Your task to perform on an android device: Open Youtube and go to "Your channel" Image 0: 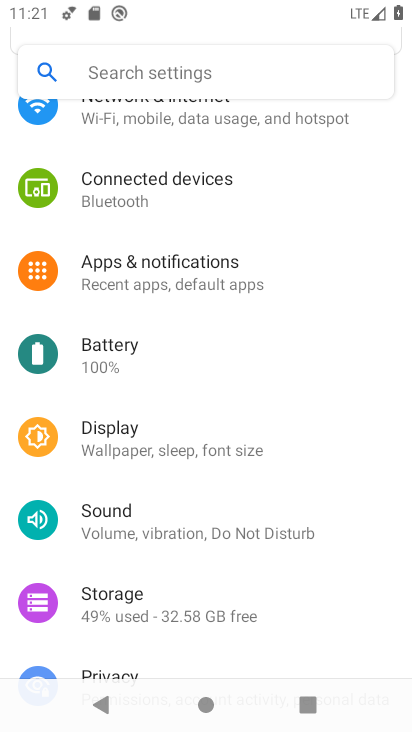
Step 0: press home button
Your task to perform on an android device: Open Youtube and go to "Your channel" Image 1: 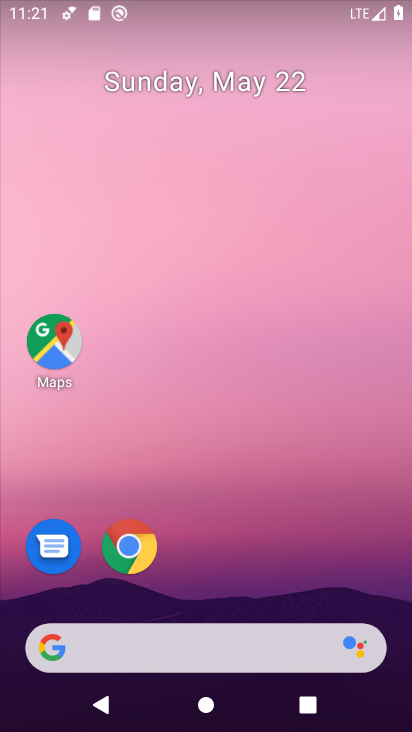
Step 1: drag from (222, 601) to (214, 162)
Your task to perform on an android device: Open Youtube and go to "Your channel" Image 2: 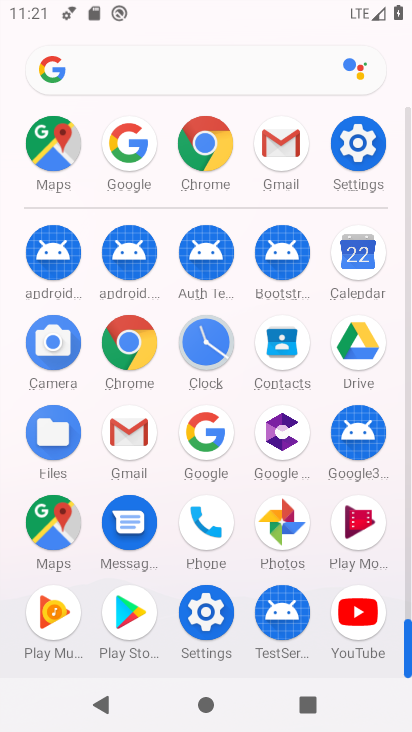
Step 2: click (337, 636)
Your task to perform on an android device: Open Youtube and go to "Your channel" Image 3: 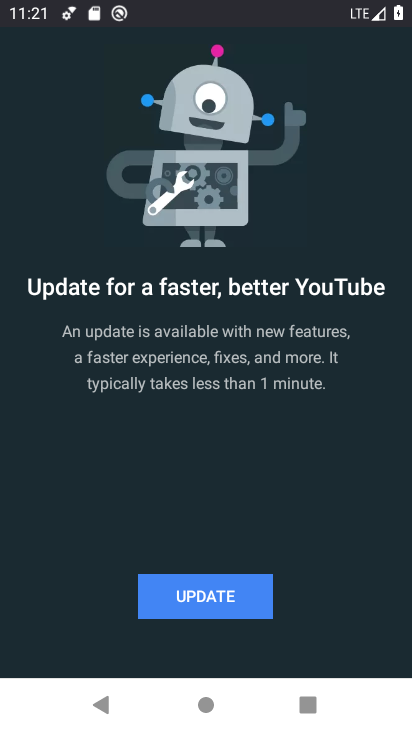
Step 3: click (221, 600)
Your task to perform on an android device: Open Youtube and go to "Your channel" Image 4: 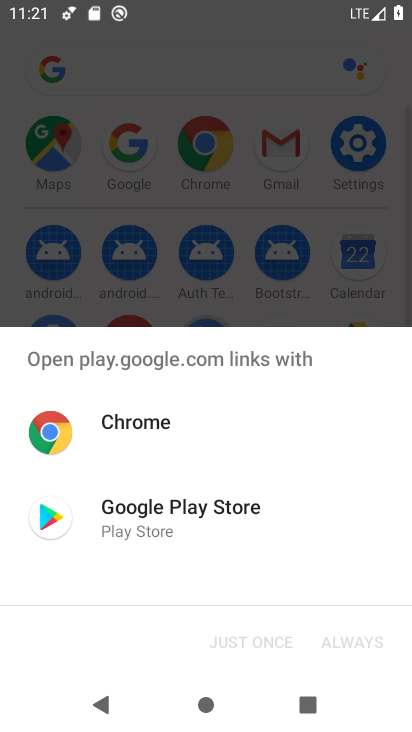
Step 4: click (204, 532)
Your task to perform on an android device: Open Youtube and go to "Your channel" Image 5: 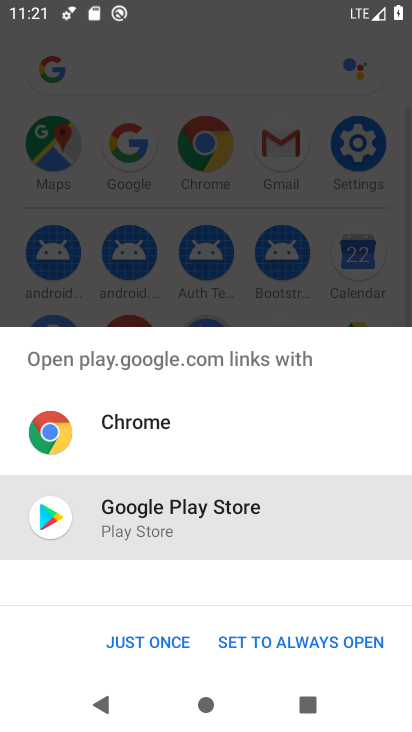
Step 5: click (170, 641)
Your task to perform on an android device: Open Youtube and go to "Your channel" Image 6: 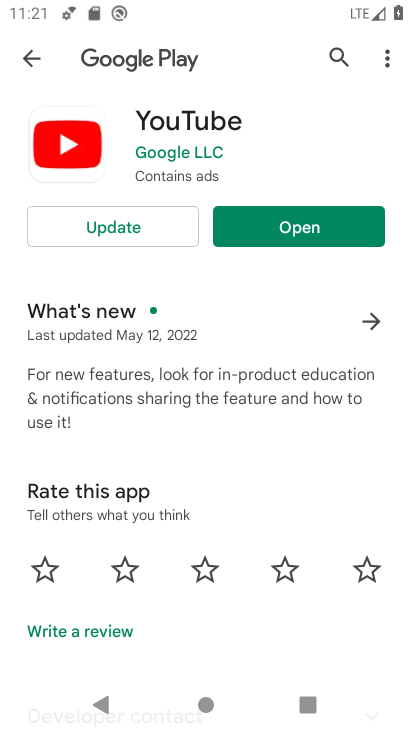
Step 6: click (137, 225)
Your task to perform on an android device: Open Youtube and go to "Your channel" Image 7: 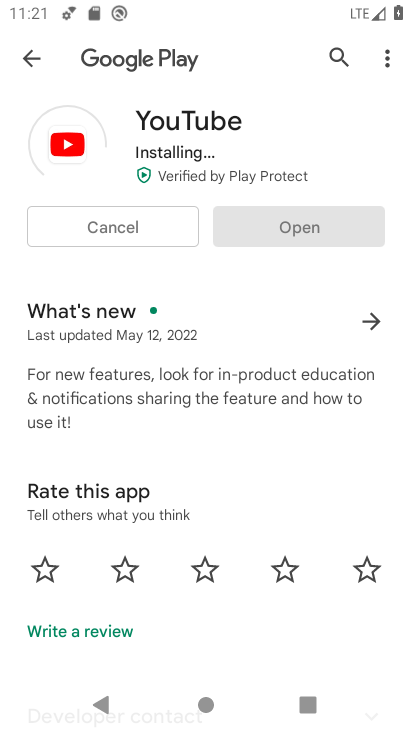
Step 7: task complete